Your task to perform on an android device: turn off translation in the chrome app Image 0: 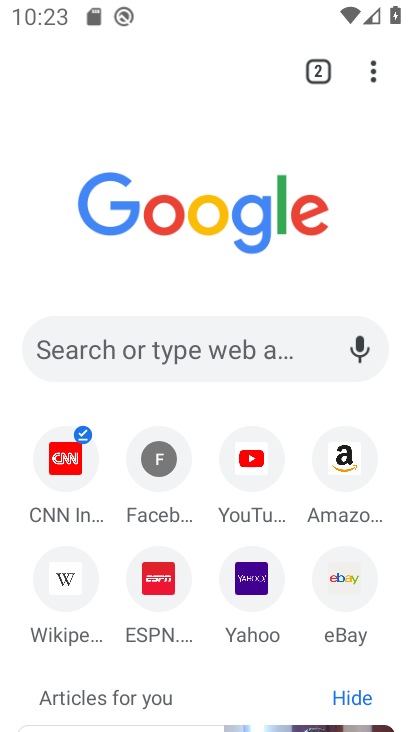
Step 0: click (377, 76)
Your task to perform on an android device: turn off translation in the chrome app Image 1: 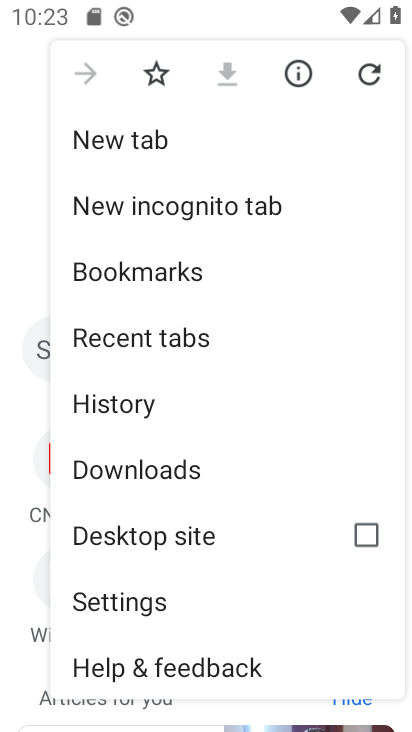
Step 1: click (159, 589)
Your task to perform on an android device: turn off translation in the chrome app Image 2: 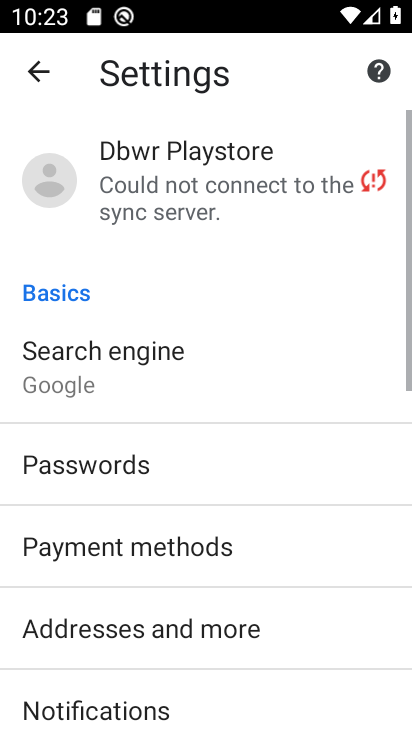
Step 2: drag from (172, 598) to (101, 123)
Your task to perform on an android device: turn off translation in the chrome app Image 3: 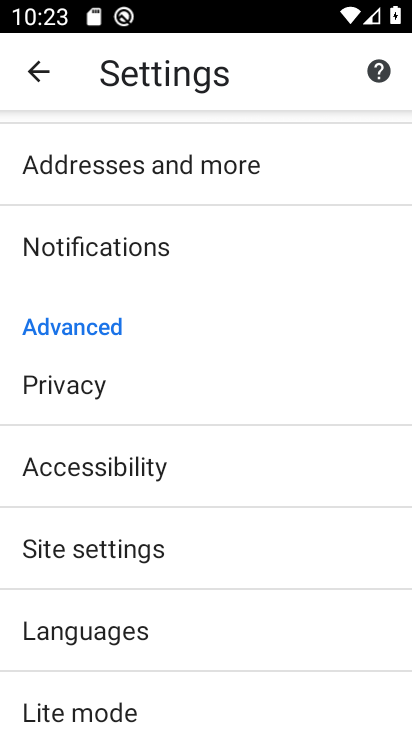
Step 3: click (93, 629)
Your task to perform on an android device: turn off translation in the chrome app Image 4: 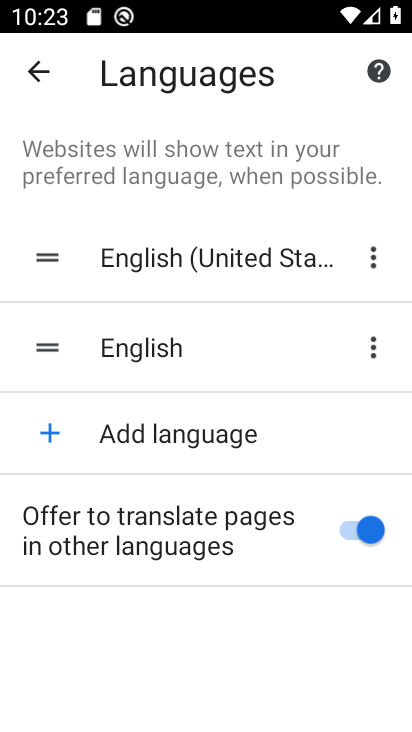
Step 4: click (341, 528)
Your task to perform on an android device: turn off translation in the chrome app Image 5: 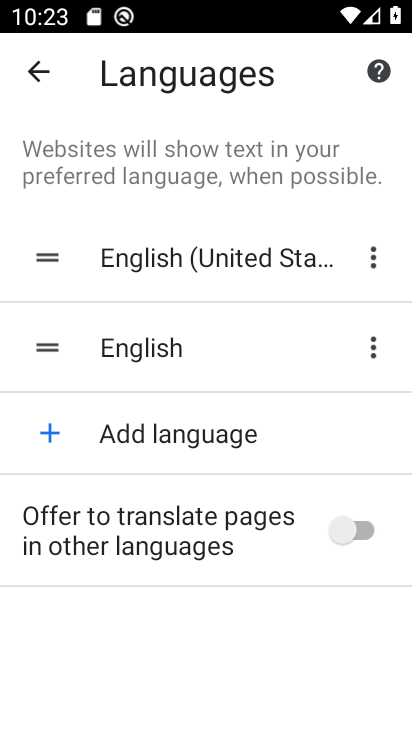
Step 5: task complete